Your task to perform on an android device: Add "alienware area 51" to the cart on walmart Image 0: 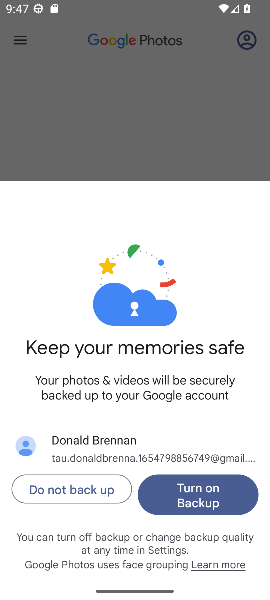
Step 0: press home button
Your task to perform on an android device: Add "alienware area 51" to the cart on walmart Image 1: 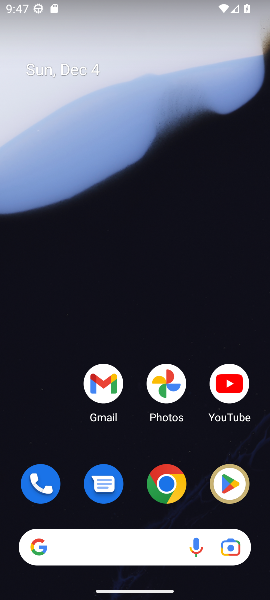
Step 1: click (163, 488)
Your task to perform on an android device: Add "alienware area 51" to the cart on walmart Image 2: 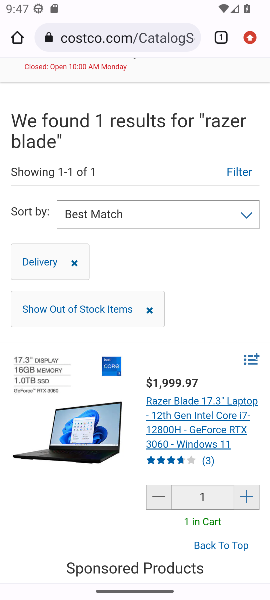
Step 2: click (107, 32)
Your task to perform on an android device: Add "alienware area 51" to the cart on walmart Image 3: 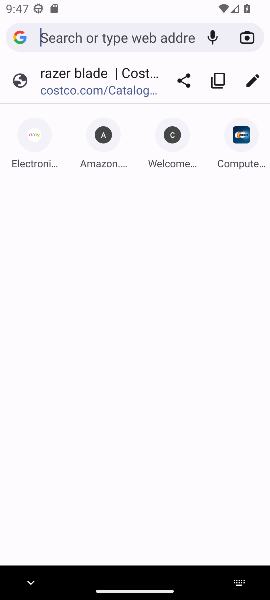
Step 3: type "walmart.com"
Your task to perform on an android device: Add "alienware area 51" to the cart on walmart Image 4: 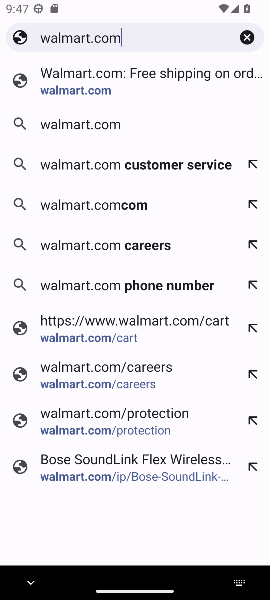
Step 4: click (73, 84)
Your task to perform on an android device: Add "alienware area 51" to the cart on walmart Image 5: 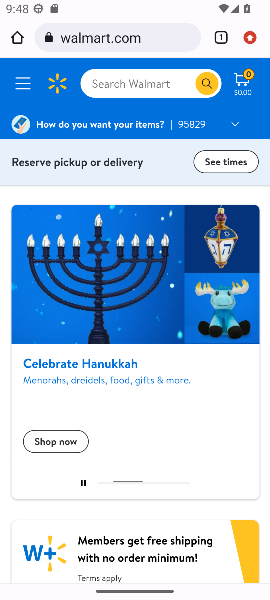
Step 5: click (142, 85)
Your task to perform on an android device: Add "alienware area 51" to the cart on walmart Image 6: 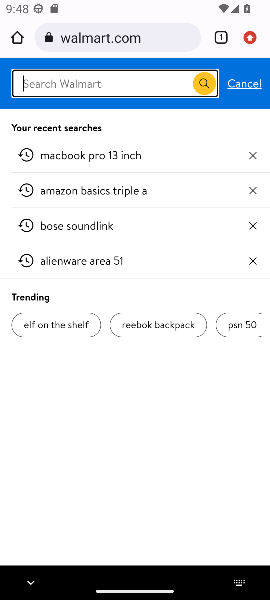
Step 6: type "alienware area 51"
Your task to perform on an android device: Add "alienware area 51" to the cart on walmart Image 7: 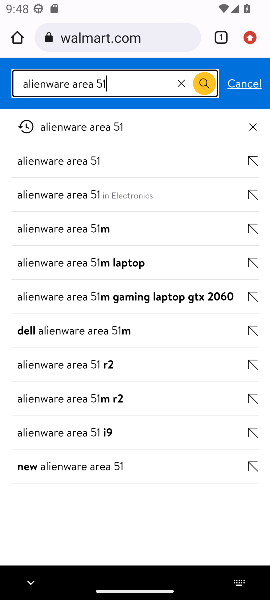
Step 7: click (80, 127)
Your task to perform on an android device: Add "alienware area 51" to the cart on walmart Image 8: 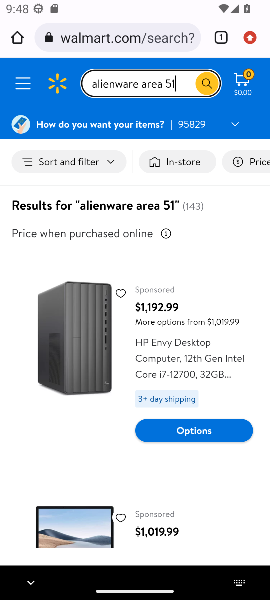
Step 8: drag from (92, 402) to (90, 103)
Your task to perform on an android device: Add "alienware area 51" to the cart on walmart Image 9: 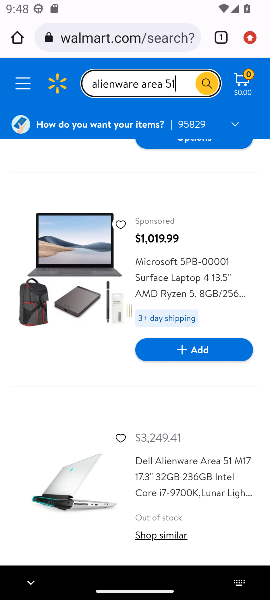
Step 9: drag from (55, 358) to (49, 202)
Your task to perform on an android device: Add "alienware area 51" to the cart on walmart Image 10: 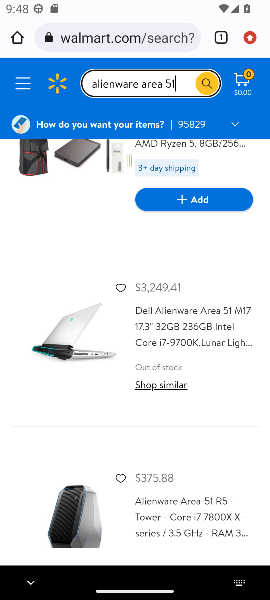
Step 10: drag from (39, 418) to (73, 196)
Your task to perform on an android device: Add "alienware area 51" to the cart on walmart Image 11: 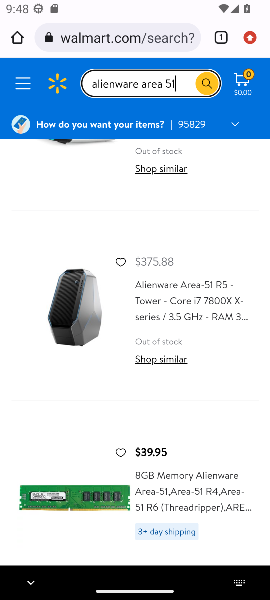
Step 11: drag from (71, 400) to (80, 221)
Your task to perform on an android device: Add "alienware area 51" to the cart on walmart Image 12: 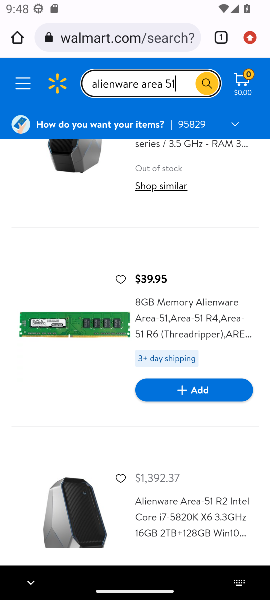
Step 12: click (197, 391)
Your task to perform on an android device: Add "alienware area 51" to the cart on walmart Image 13: 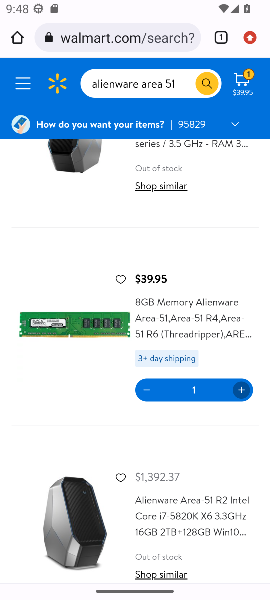
Step 13: task complete